Your task to perform on an android device: Open sound settings Image 0: 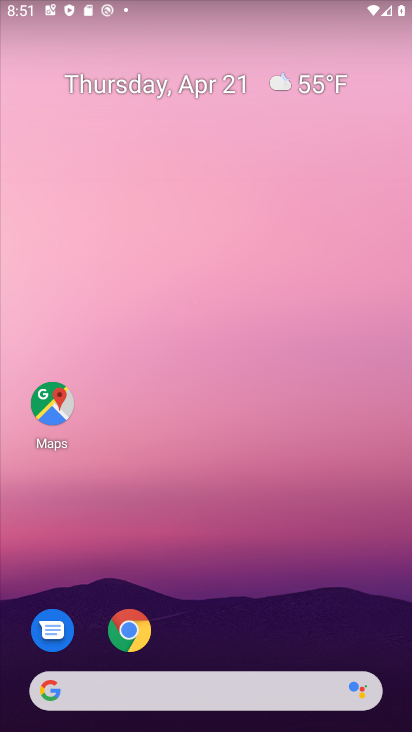
Step 0: drag from (205, 625) to (253, 111)
Your task to perform on an android device: Open sound settings Image 1: 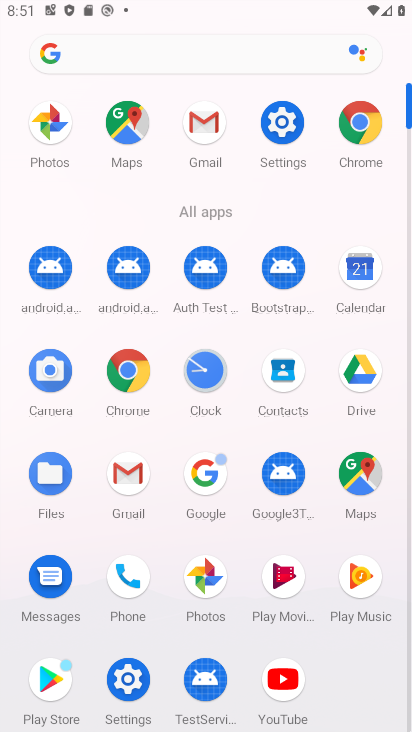
Step 1: click (134, 689)
Your task to perform on an android device: Open sound settings Image 2: 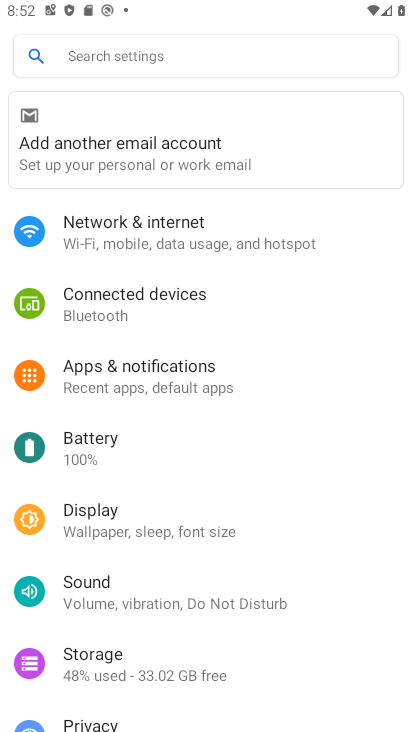
Step 2: click (116, 595)
Your task to perform on an android device: Open sound settings Image 3: 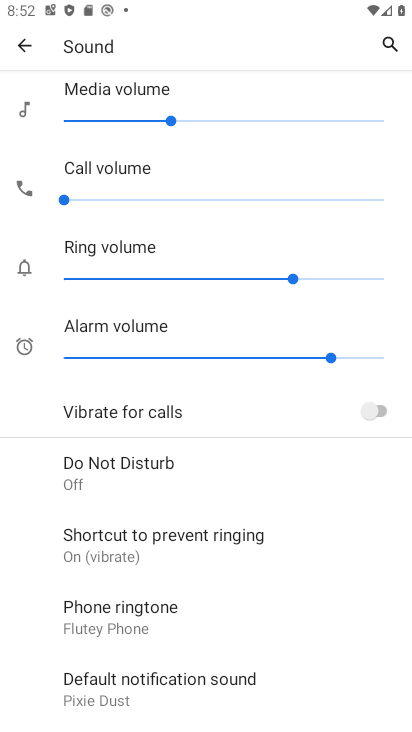
Step 3: task complete